Your task to perform on an android device: open app "Grab" (install if not already installed) Image 0: 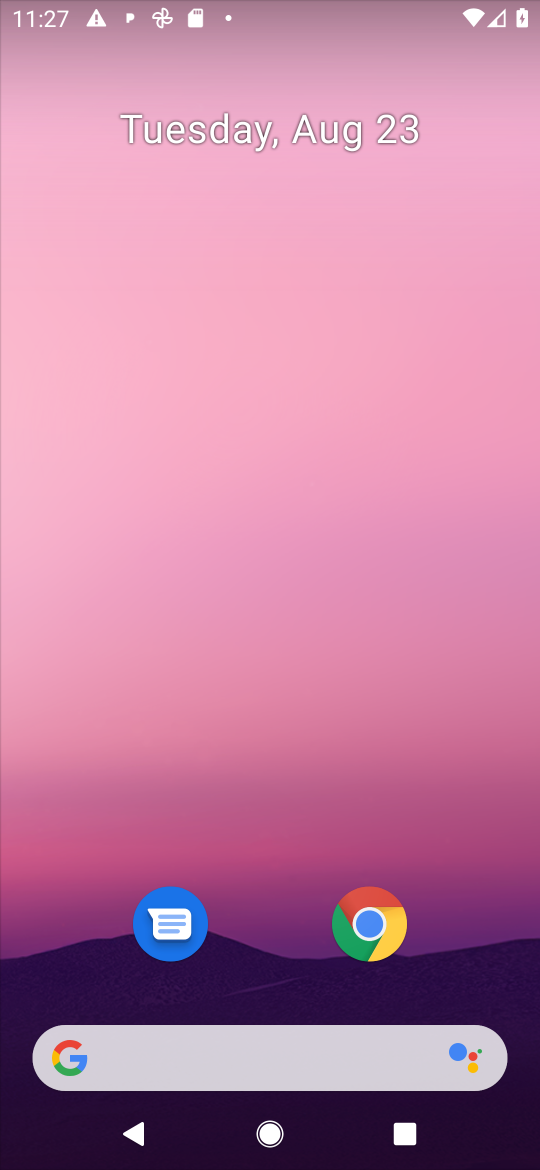
Step 0: press home button
Your task to perform on an android device: open app "Grab" (install if not already installed) Image 1: 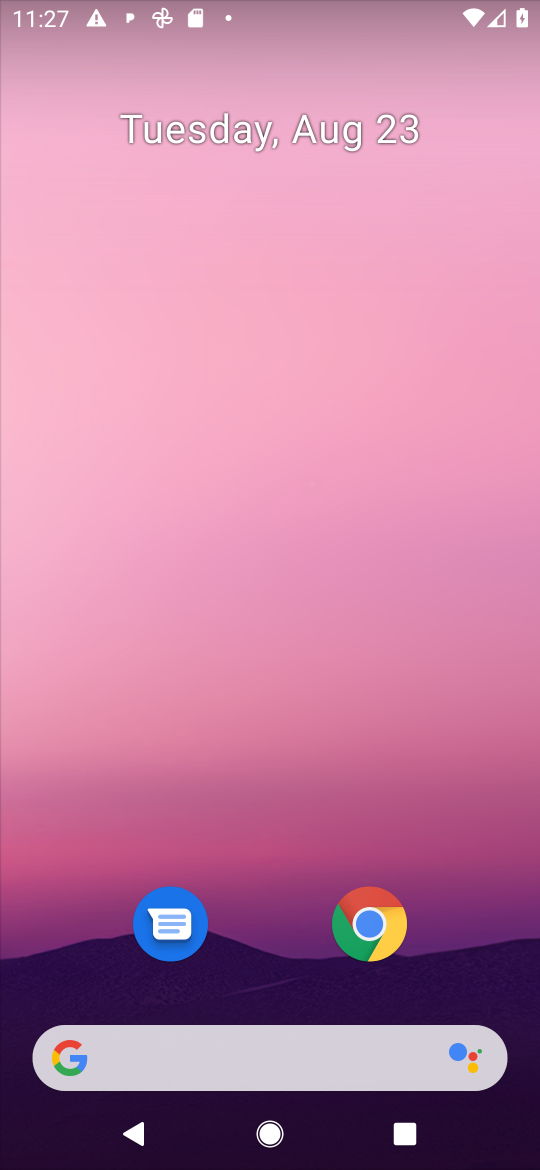
Step 1: drag from (459, 956) to (460, 116)
Your task to perform on an android device: open app "Grab" (install if not already installed) Image 2: 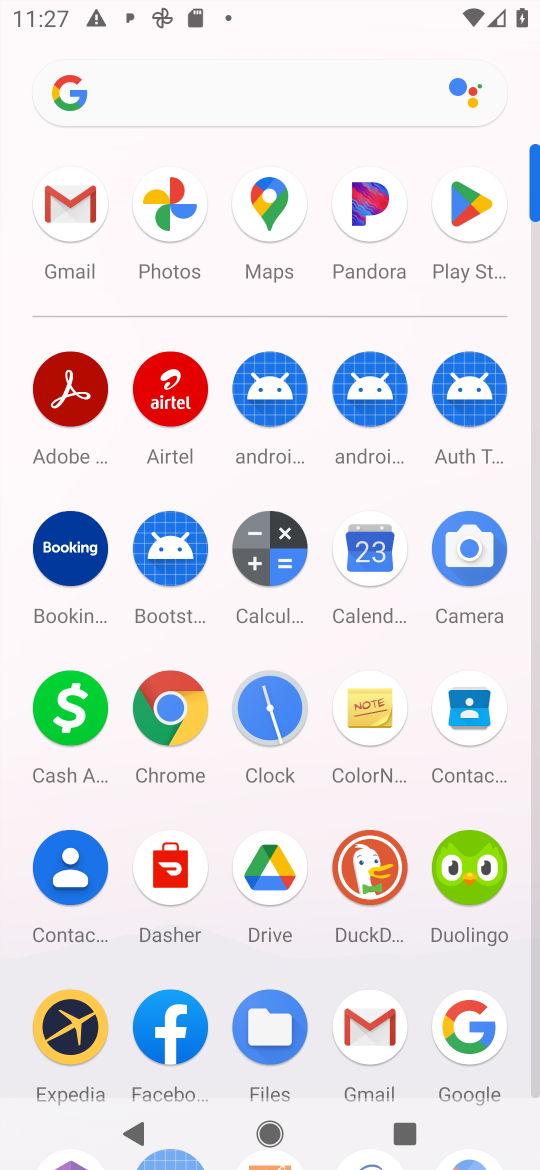
Step 2: click (472, 200)
Your task to perform on an android device: open app "Grab" (install if not already installed) Image 3: 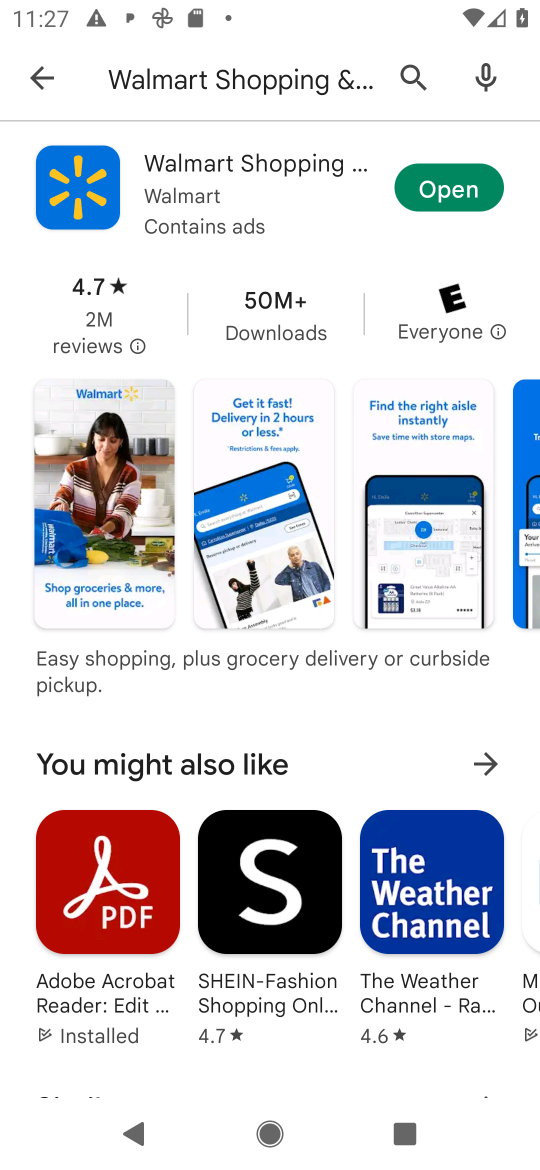
Step 3: press back button
Your task to perform on an android device: open app "Grab" (install if not already installed) Image 4: 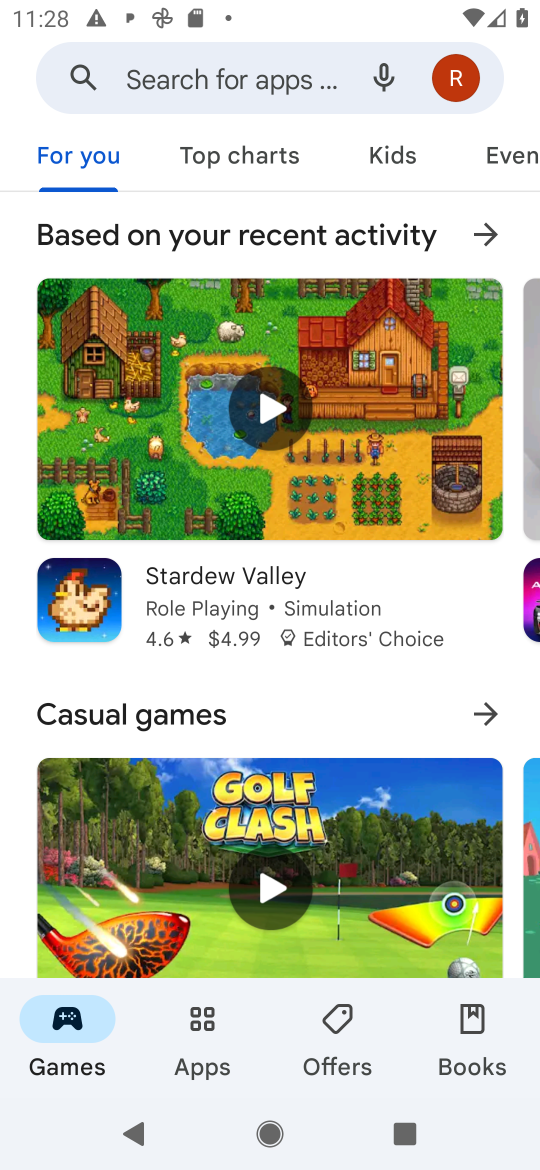
Step 4: click (213, 76)
Your task to perform on an android device: open app "Grab" (install if not already installed) Image 5: 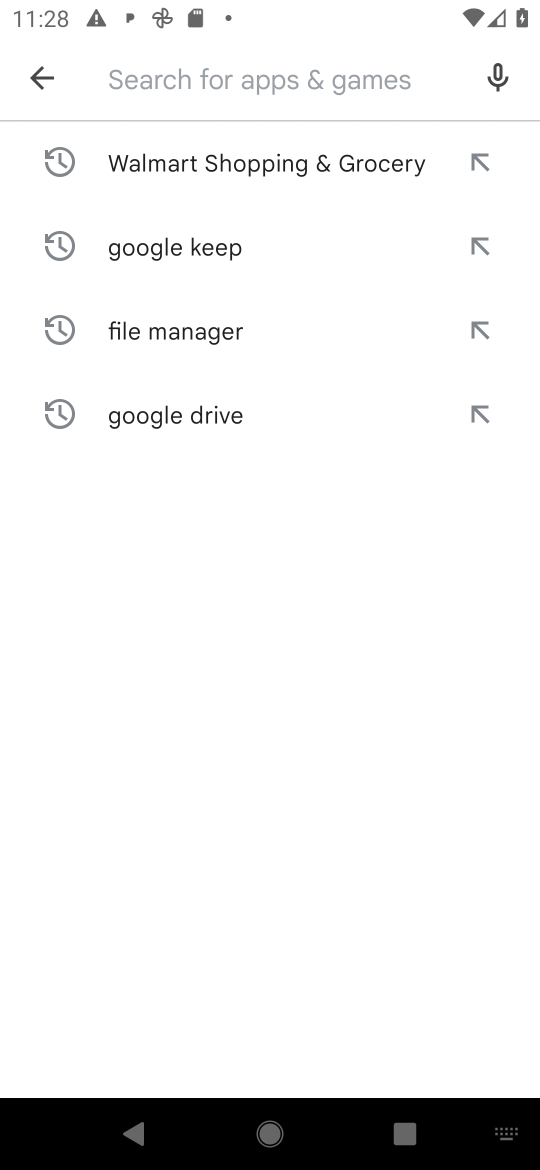
Step 5: press enter
Your task to perform on an android device: open app "Grab" (install if not already installed) Image 6: 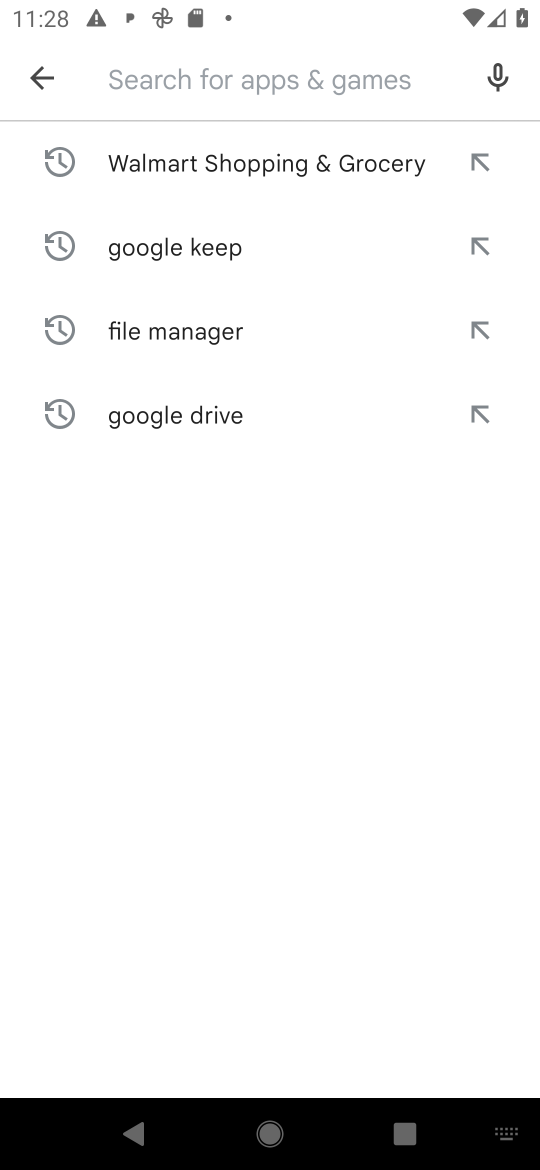
Step 6: type "grab"
Your task to perform on an android device: open app "Grab" (install if not already installed) Image 7: 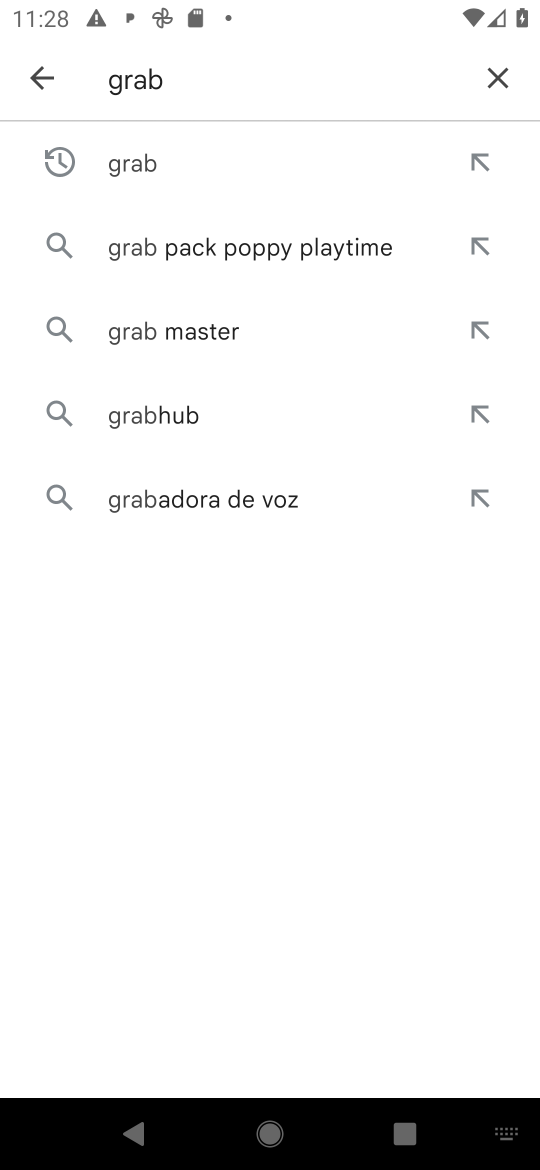
Step 7: click (139, 160)
Your task to perform on an android device: open app "Grab" (install if not already installed) Image 8: 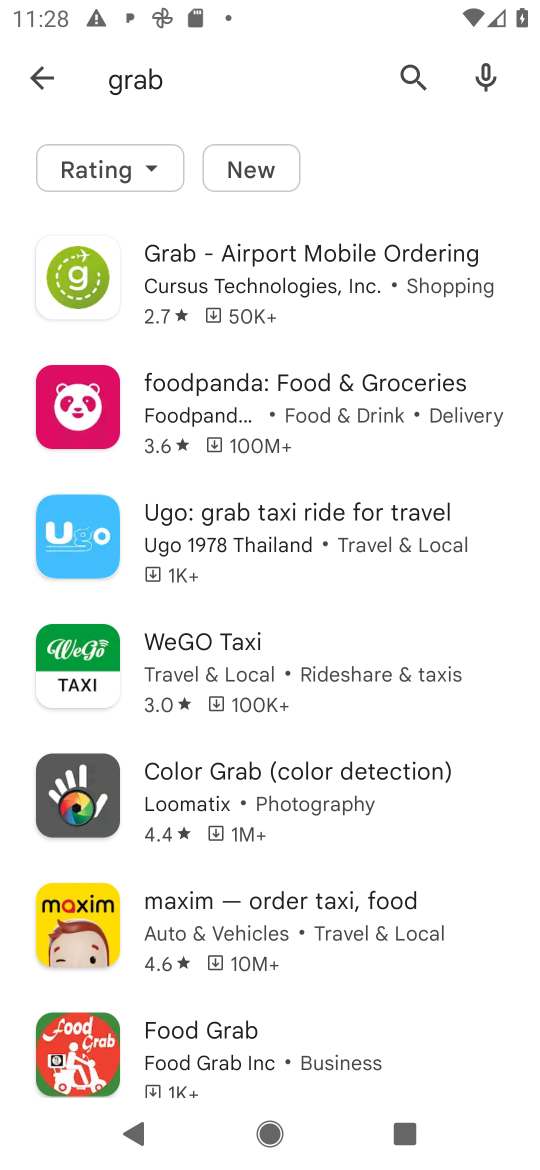
Step 8: task complete